Your task to perform on an android device: set an alarm Image 0: 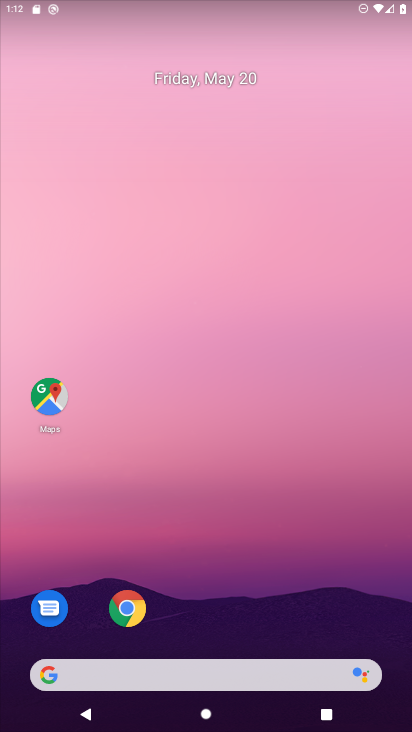
Step 0: press home button
Your task to perform on an android device: set an alarm Image 1: 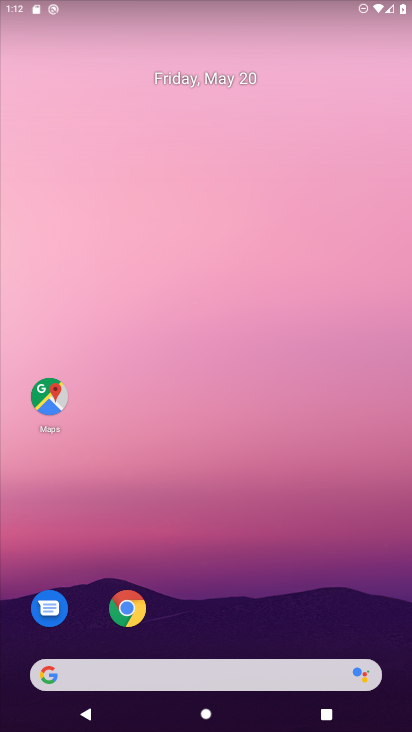
Step 1: drag from (249, 491) to (231, 32)
Your task to perform on an android device: set an alarm Image 2: 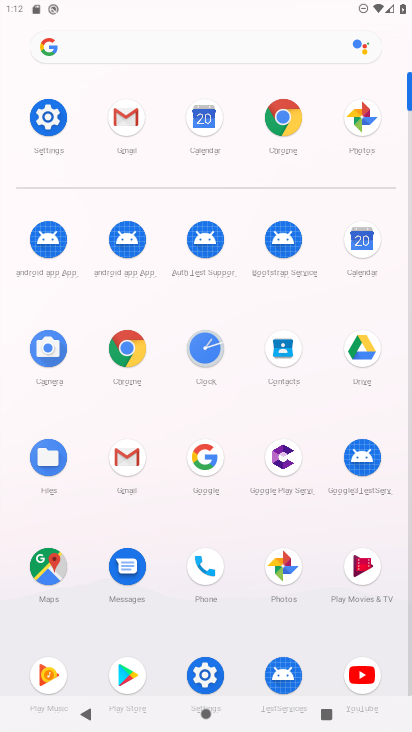
Step 2: click (209, 352)
Your task to perform on an android device: set an alarm Image 3: 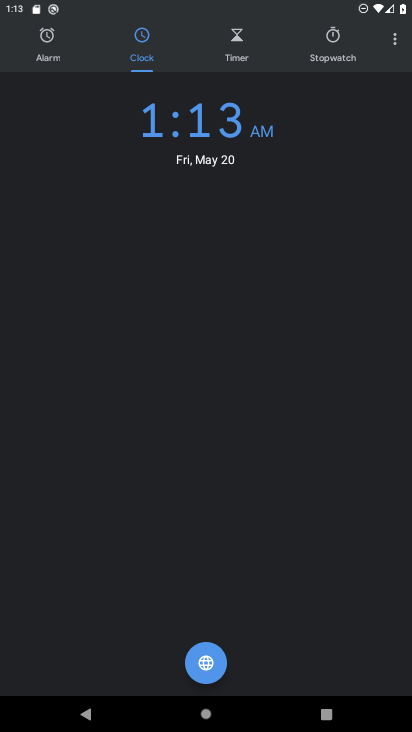
Step 3: click (57, 39)
Your task to perform on an android device: set an alarm Image 4: 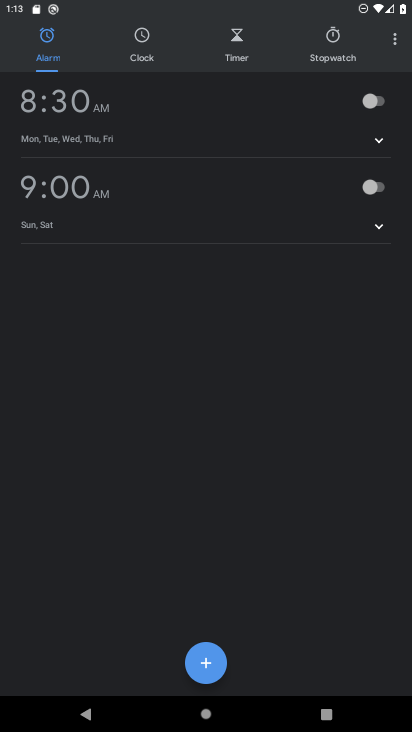
Step 4: click (196, 675)
Your task to perform on an android device: set an alarm Image 5: 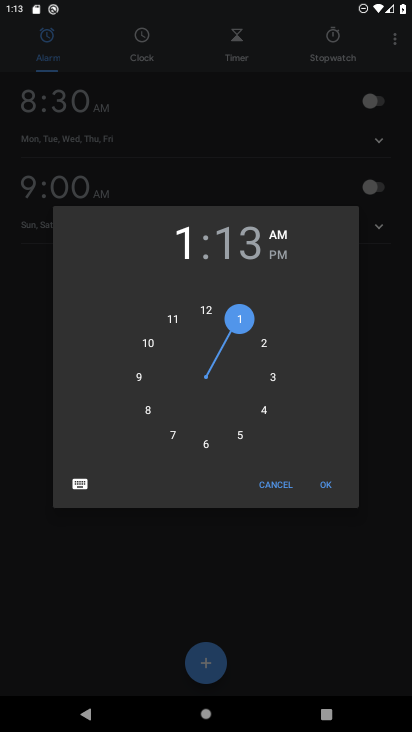
Step 5: click (336, 480)
Your task to perform on an android device: set an alarm Image 6: 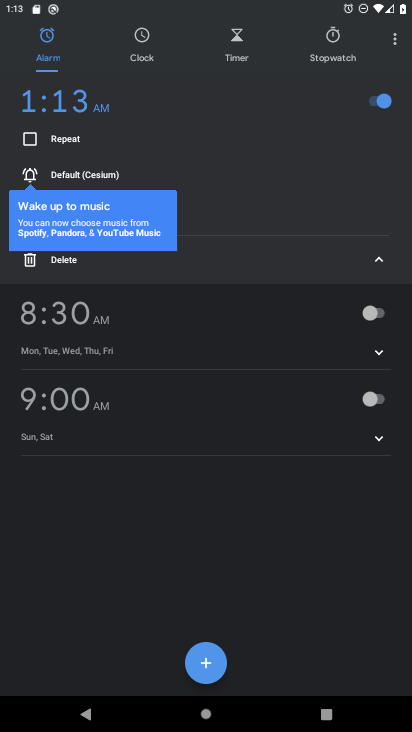
Step 6: task complete